Your task to perform on an android device: empty trash in the gmail app Image 0: 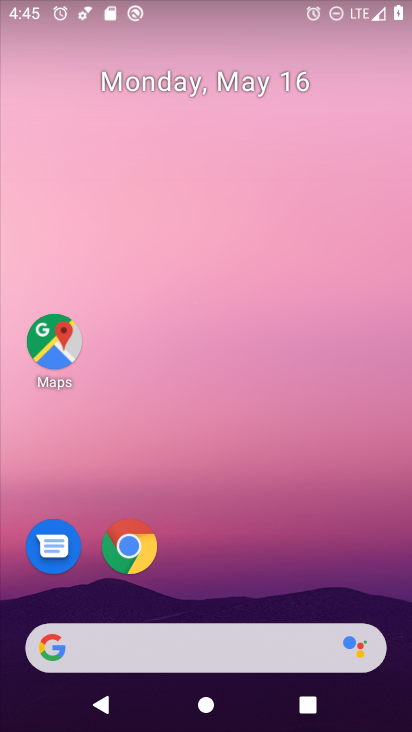
Step 0: drag from (385, 600) to (371, 99)
Your task to perform on an android device: empty trash in the gmail app Image 1: 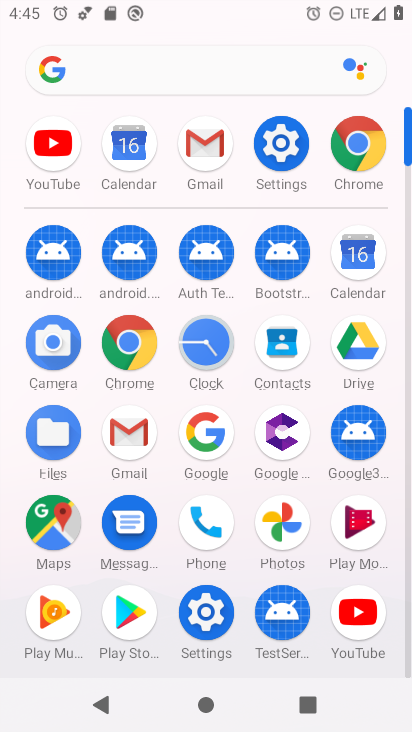
Step 1: click (128, 433)
Your task to perform on an android device: empty trash in the gmail app Image 2: 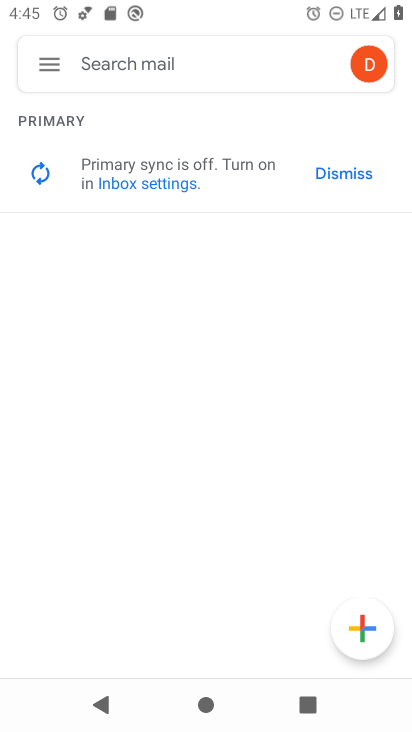
Step 2: click (34, 53)
Your task to perform on an android device: empty trash in the gmail app Image 3: 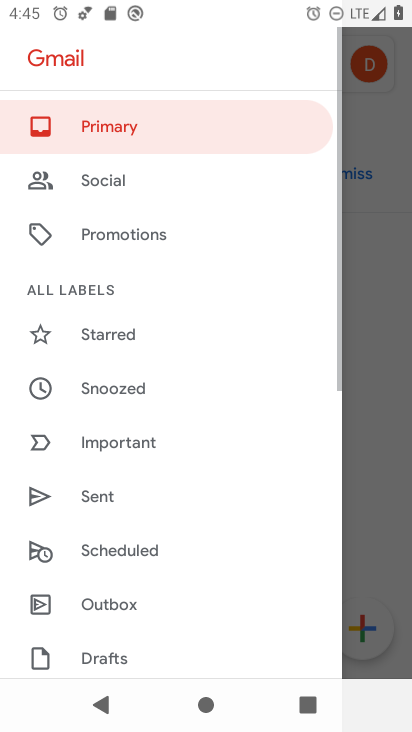
Step 3: drag from (223, 522) to (233, 388)
Your task to perform on an android device: empty trash in the gmail app Image 4: 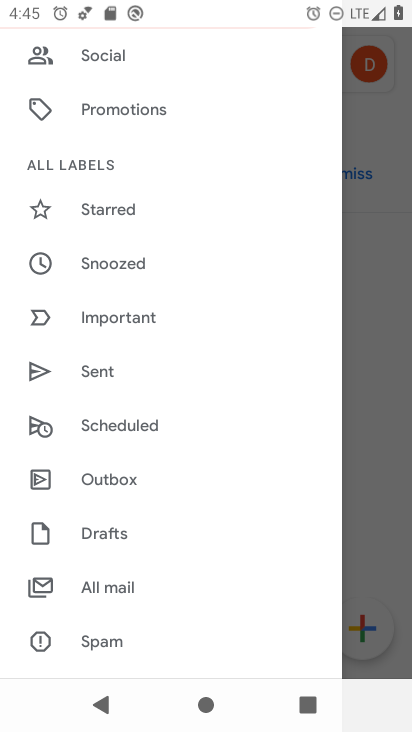
Step 4: drag from (197, 606) to (218, 428)
Your task to perform on an android device: empty trash in the gmail app Image 5: 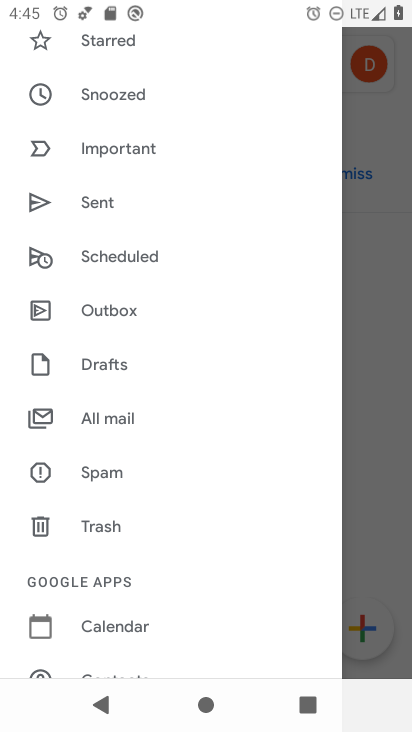
Step 5: drag from (209, 643) to (238, 440)
Your task to perform on an android device: empty trash in the gmail app Image 6: 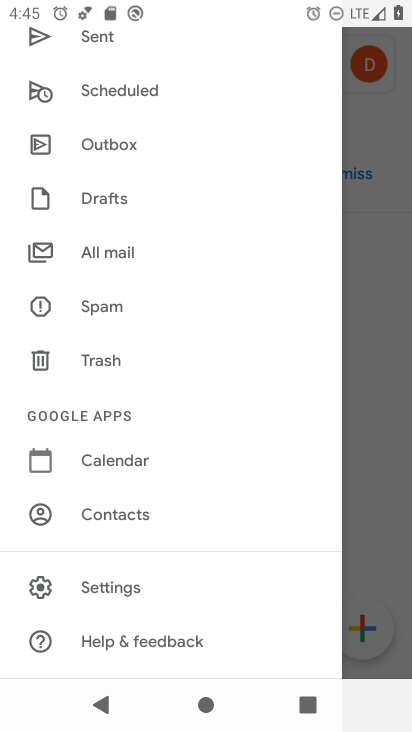
Step 6: drag from (239, 606) to (253, 443)
Your task to perform on an android device: empty trash in the gmail app Image 7: 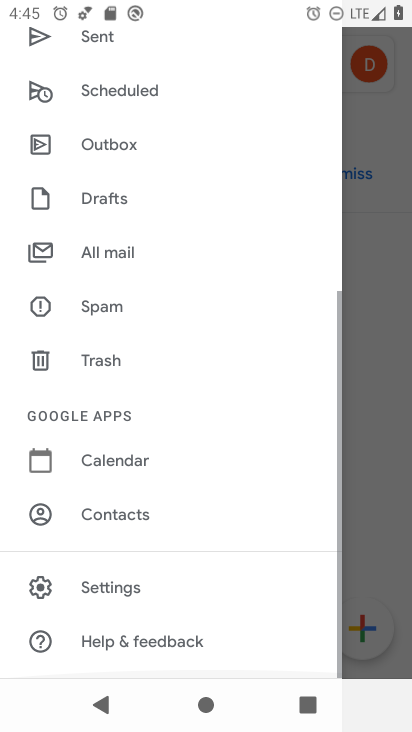
Step 7: drag from (263, 338) to (265, 471)
Your task to perform on an android device: empty trash in the gmail app Image 8: 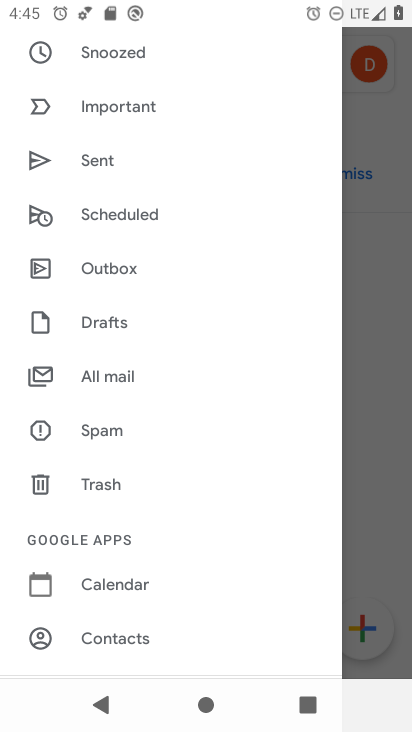
Step 8: click (106, 496)
Your task to perform on an android device: empty trash in the gmail app Image 9: 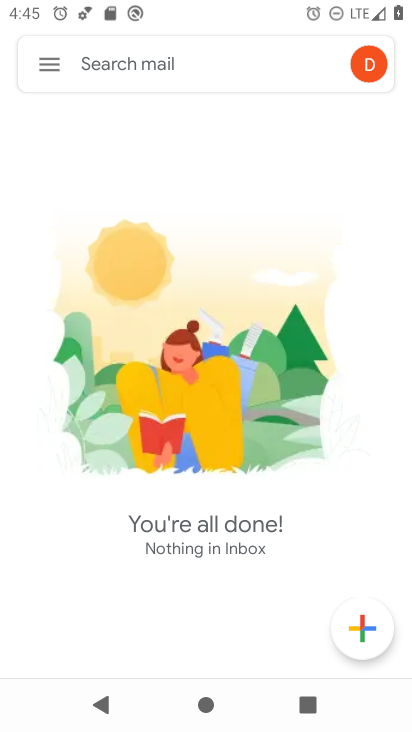
Step 9: task complete